Your task to perform on an android device: Open Google Maps and go to "Timeline" Image 0: 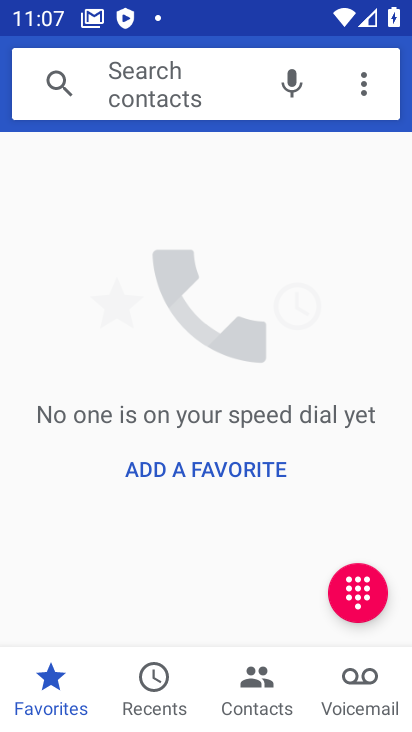
Step 0: press home button
Your task to perform on an android device: Open Google Maps and go to "Timeline" Image 1: 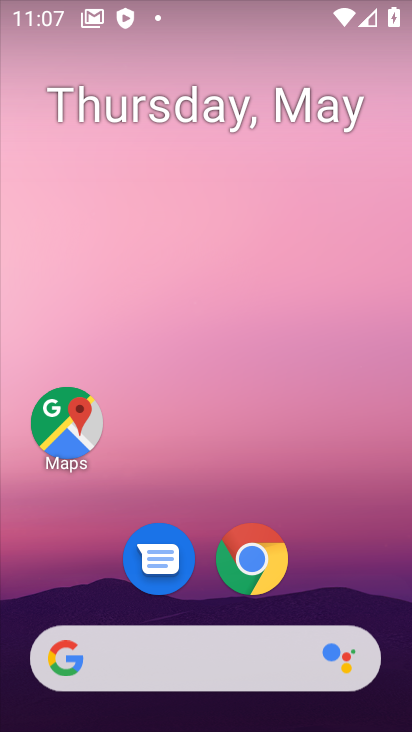
Step 1: drag from (199, 725) to (202, 206)
Your task to perform on an android device: Open Google Maps and go to "Timeline" Image 2: 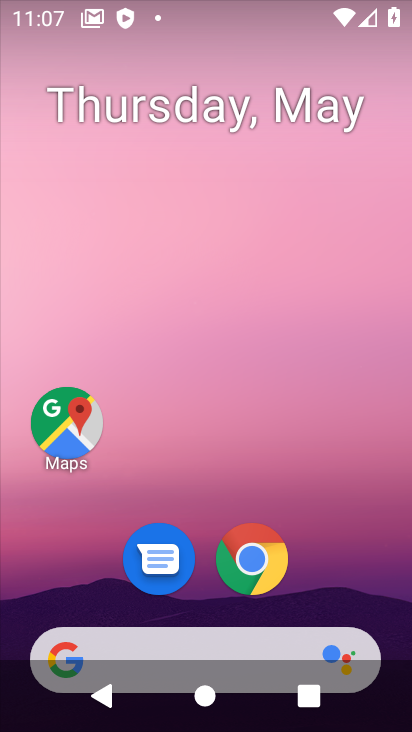
Step 2: drag from (206, 728) to (195, 231)
Your task to perform on an android device: Open Google Maps and go to "Timeline" Image 3: 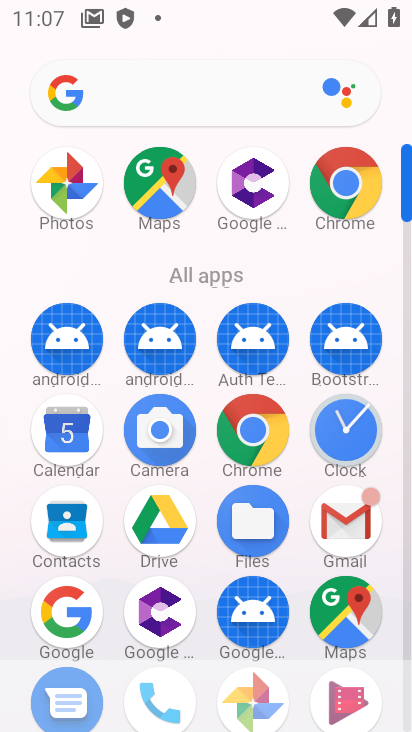
Step 3: click (343, 608)
Your task to perform on an android device: Open Google Maps and go to "Timeline" Image 4: 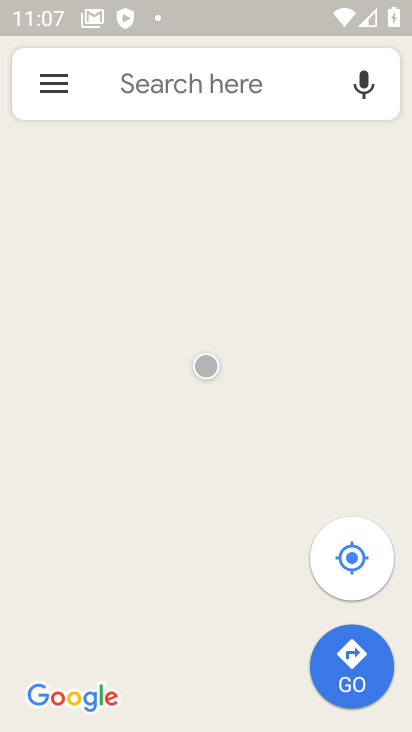
Step 4: click (54, 84)
Your task to perform on an android device: Open Google Maps and go to "Timeline" Image 5: 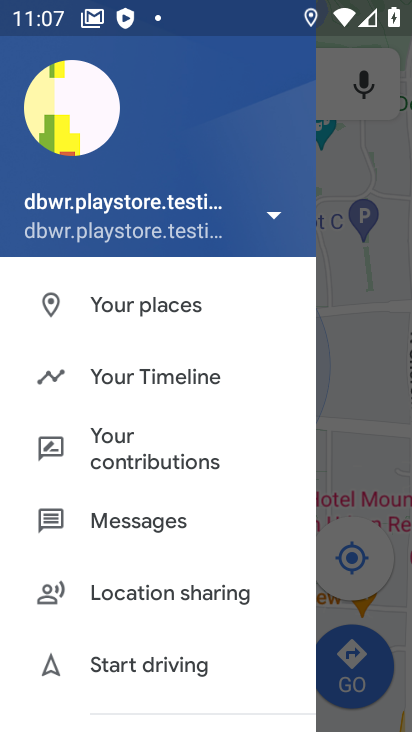
Step 5: click (157, 375)
Your task to perform on an android device: Open Google Maps and go to "Timeline" Image 6: 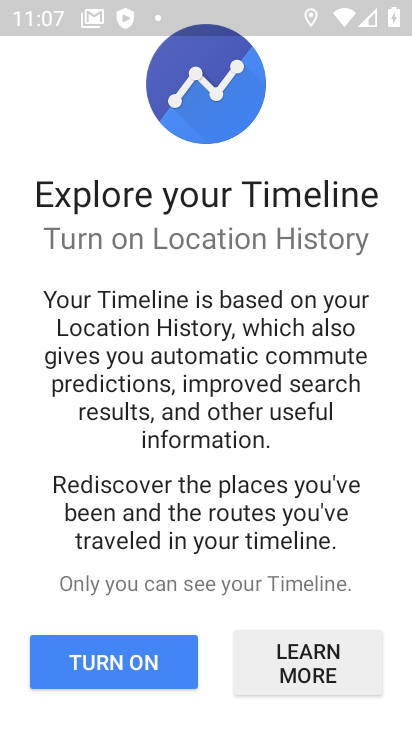
Step 6: click (121, 657)
Your task to perform on an android device: Open Google Maps and go to "Timeline" Image 7: 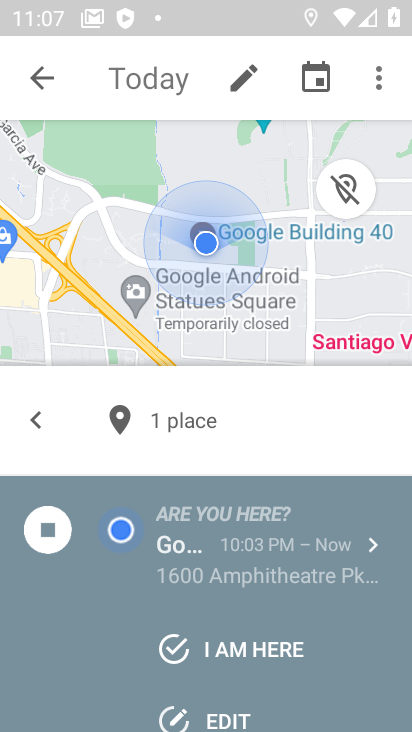
Step 7: task complete